Your task to perform on an android device: turn on the 12-hour format for clock Image 0: 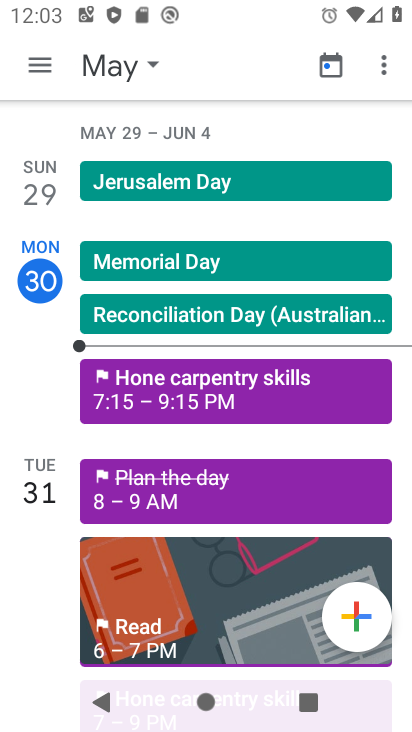
Step 0: press home button
Your task to perform on an android device: turn on the 12-hour format for clock Image 1: 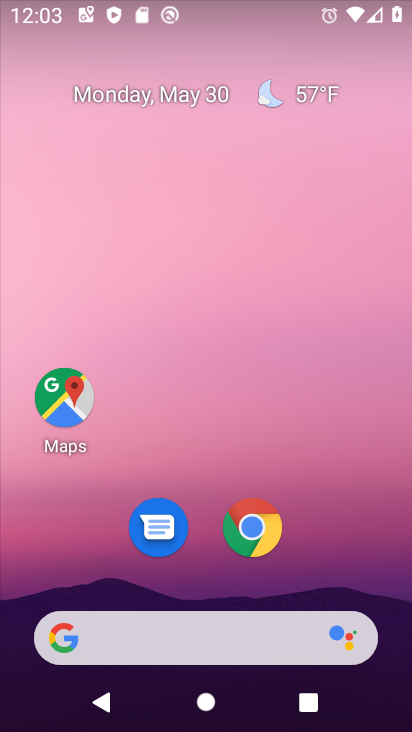
Step 1: drag from (188, 562) to (282, 34)
Your task to perform on an android device: turn on the 12-hour format for clock Image 2: 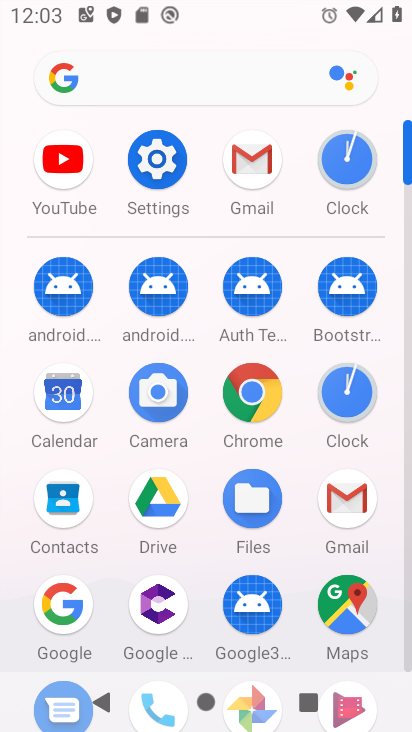
Step 2: click (323, 134)
Your task to perform on an android device: turn on the 12-hour format for clock Image 3: 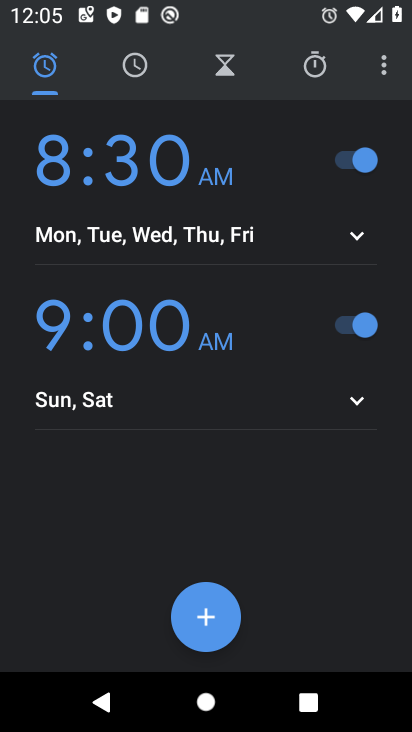
Step 3: task complete